Your task to perform on an android device: Open Chrome and go to the settings page Image 0: 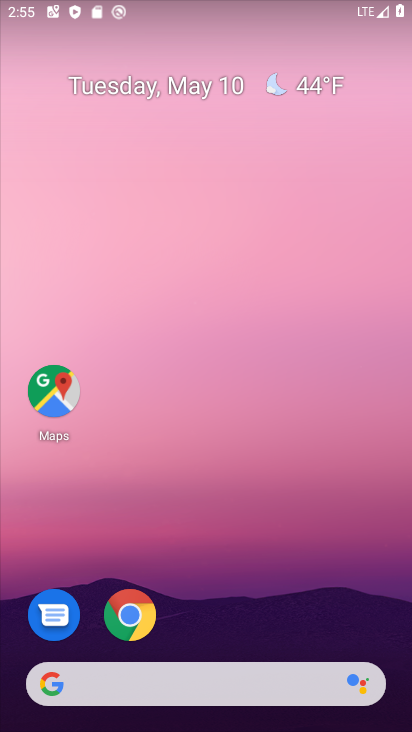
Step 0: click (136, 620)
Your task to perform on an android device: Open Chrome and go to the settings page Image 1: 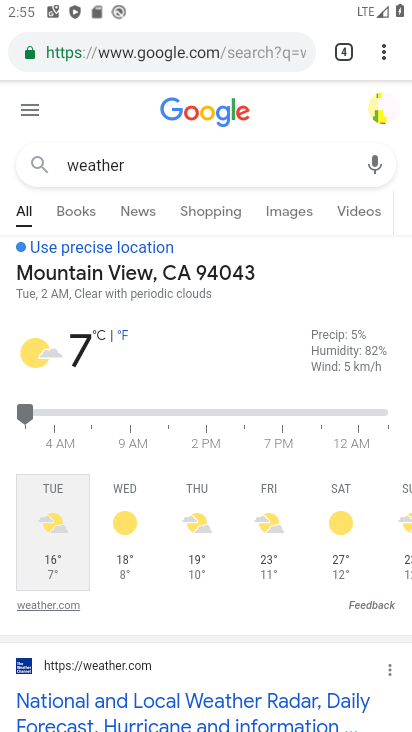
Step 1: task complete